Your task to perform on an android device: Go to Google maps Image 0: 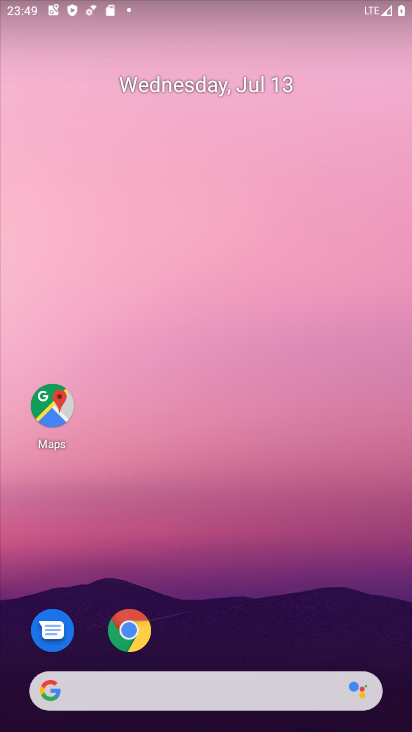
Step 0: drag from (339, 617) to (333, 93)
Your task to perform on an android device: Go to Google maps Image 1: 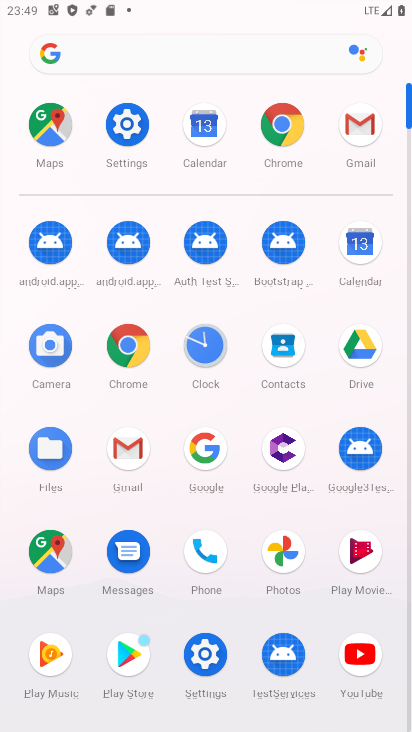
Step 1: click (47, 540)
Your task to perform on an android device: Go to Google maps Image 2: 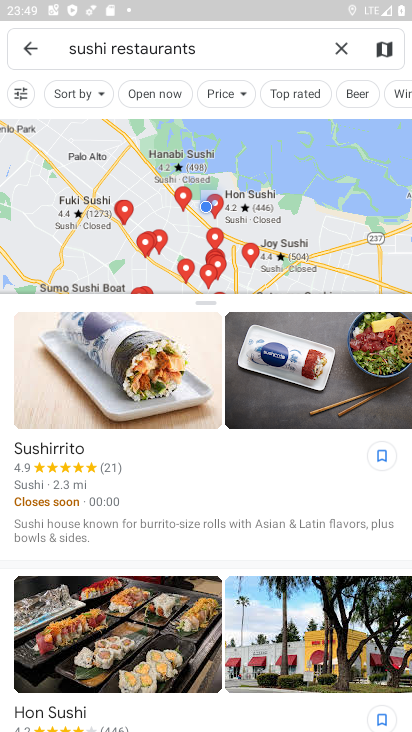
Step 2: task complete